Your task to perform on an android device: Open calendar and show me the fourth week of next month Image 0: 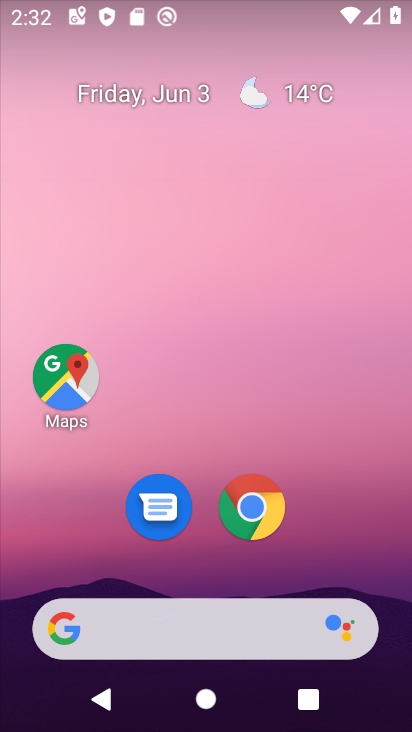
Step 0: drag from (346, 547) to (239, 73)
Your task to perform on an android device: Open calendar and show me the fourth week of next month Image 1: 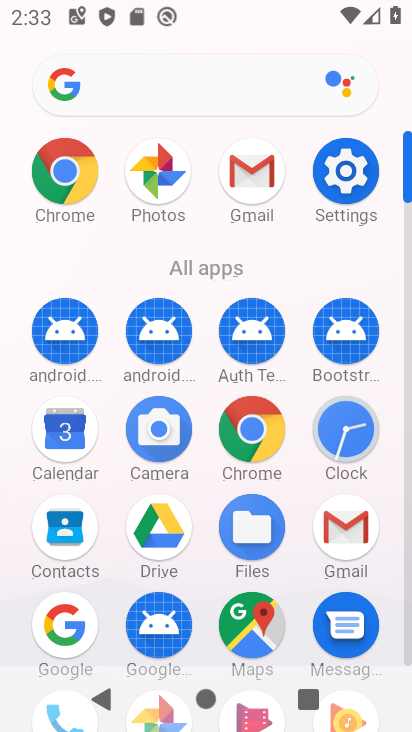
Step 1: click (67, 432)
Your task to perform on an android device: Open calendar and show me the fourth week of next month Image 2: 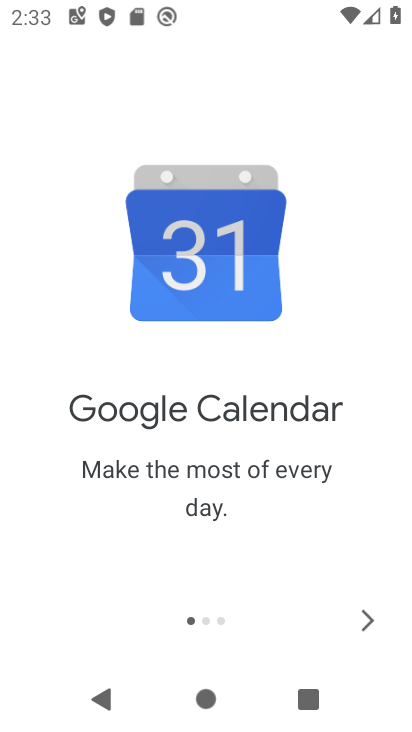
Step 2: click (370, 615)
Your task to perform on an android device: Open calendar and show me the fourth week of next month Image 3: 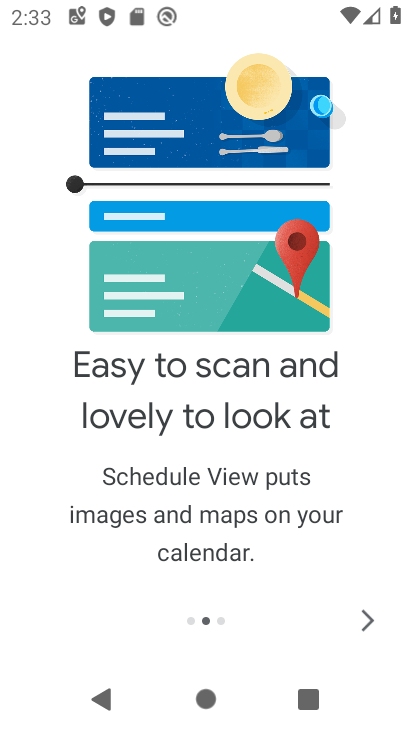
Step 3: click (370, 615)
Your task to perform on an android device: Open calendar and show me the fourth week of next month Image 4: 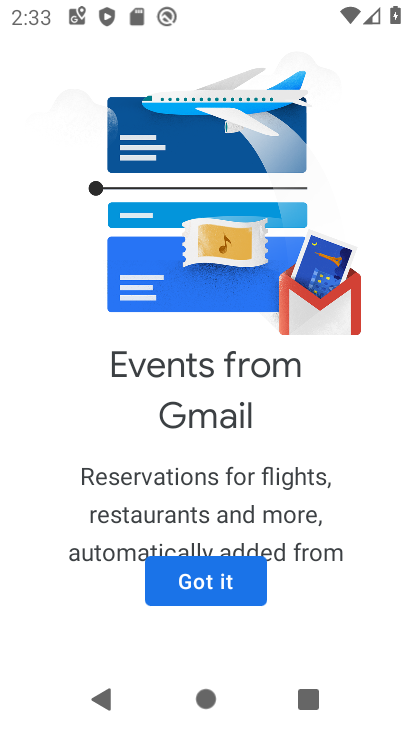
Step 4: click (213, 583)
Your task to perform on an android device: Open calendar and show me the fourth week of next month Image 5: 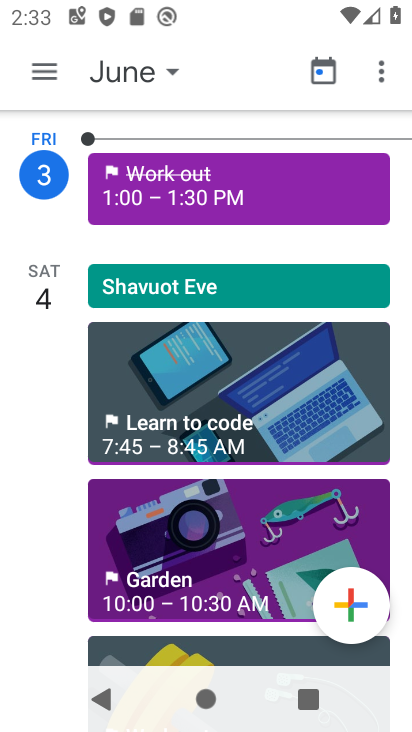
Step 5: click (172, 71)
Your task to perform on an android device: Open calendar and show me the fourth week of next month Image 6: 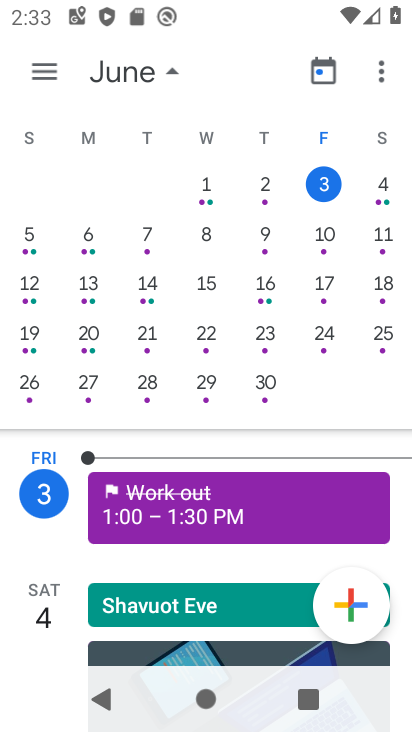
Step 6: drag from (350, 302) to (13, 410)
Your task to perform on an android device: Open calendar and show me the fourth week of next month Image 7: 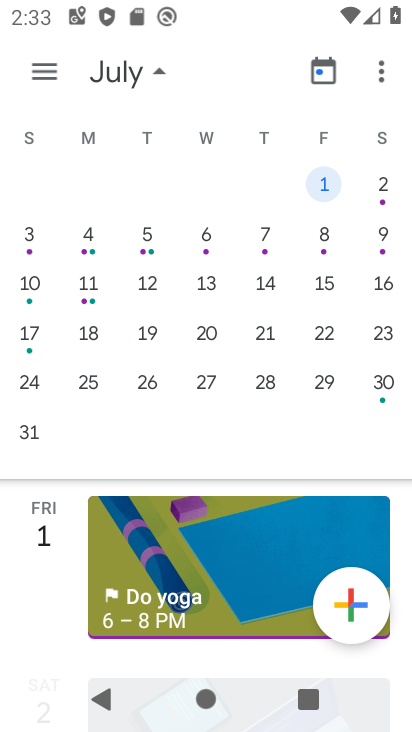
Step 7: click (97, 377)
Your task to perform on an android device: Open calendar and show me the fourth week of next month Image 8: 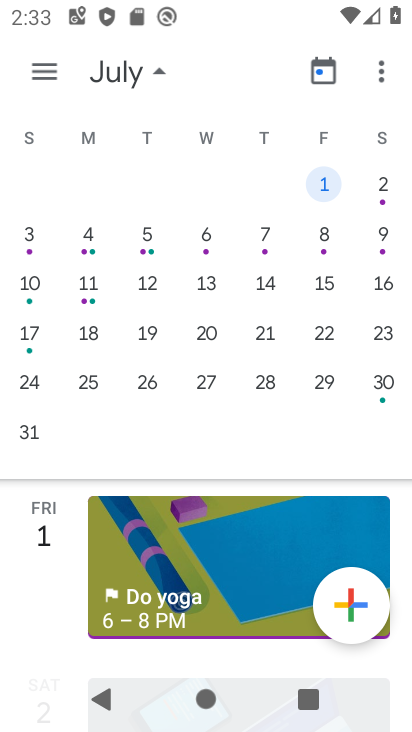
Step 8: click (94, 383)
Your task to perform on an android device: Open calendar and show me the fourth week of next month Image 9: 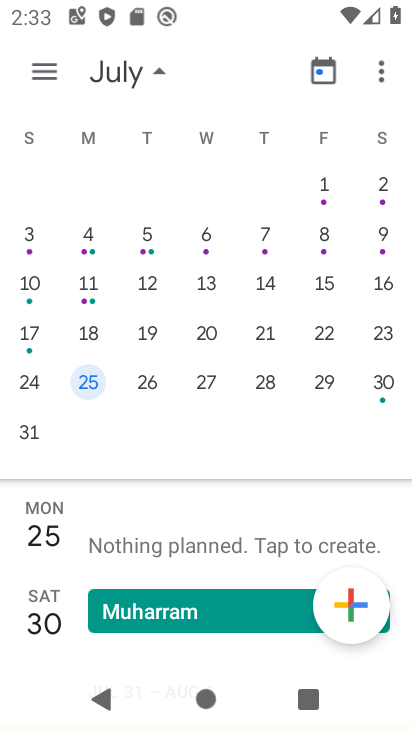
Step 9: click (38, 68)
Your task to perform on an android device: Open calendar and show me the fourth week of next month Image 10: 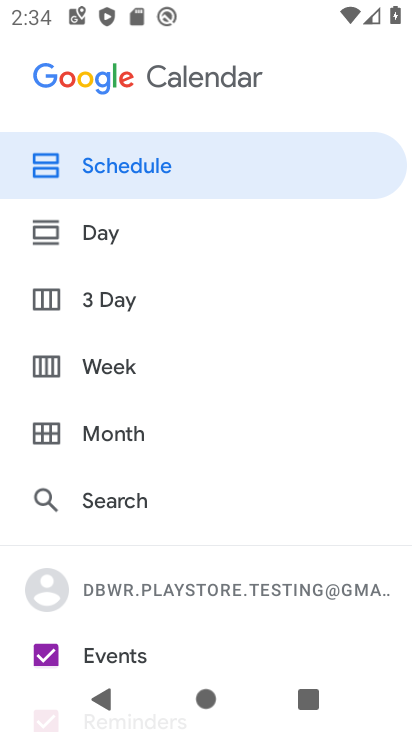
Step 10: click (103, 370)
Your task to perform on an android device: Open calendar and show me the fourth week of next month Image 11: 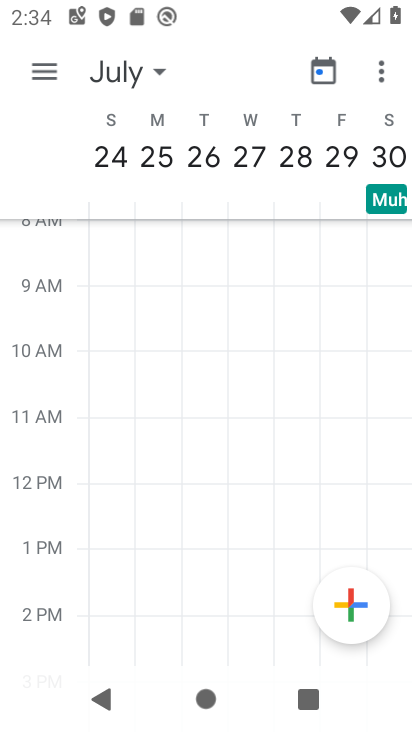
Step 11: task complete